Your task to perform on an android device: What is the news today? Image 0: 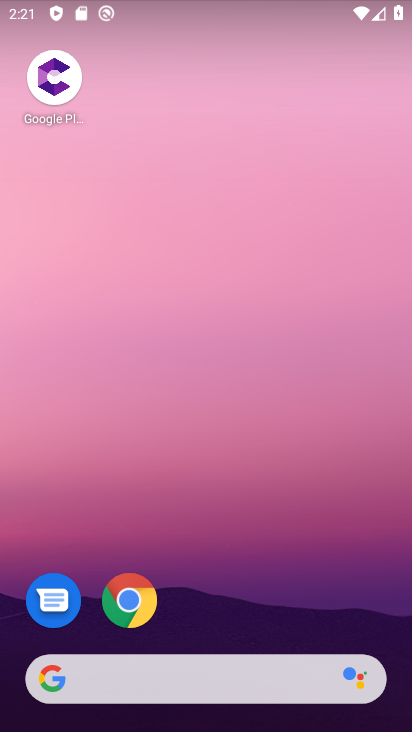
Step 0: drag from (5, 346) to (347, 377)
Your task to perform on an android device: What is the news today? Image 1: 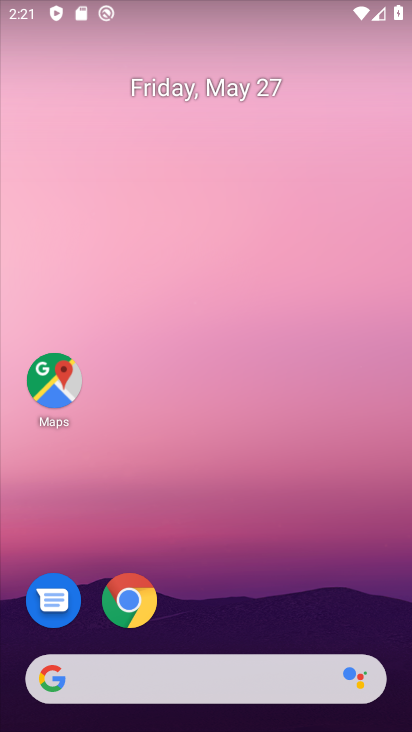
Step 1: drag from (3, 282) to (363, 287)
Your task to perform on an android device: What is the news today? Image 2: 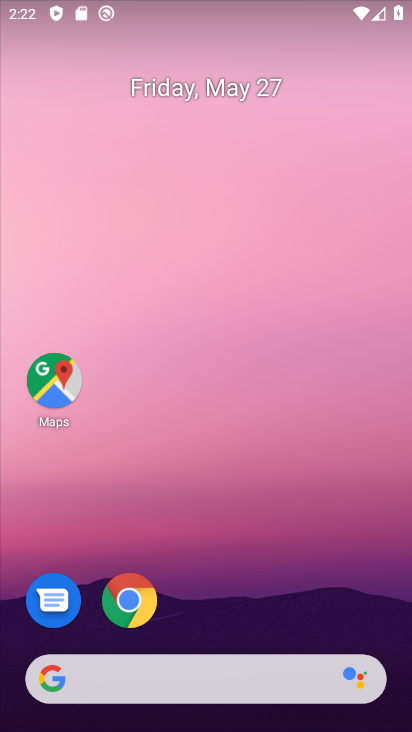
Step 2: drag from (1, 241) to (378, 223)
Your task to perform on an android device: What is the news today? Image 3: 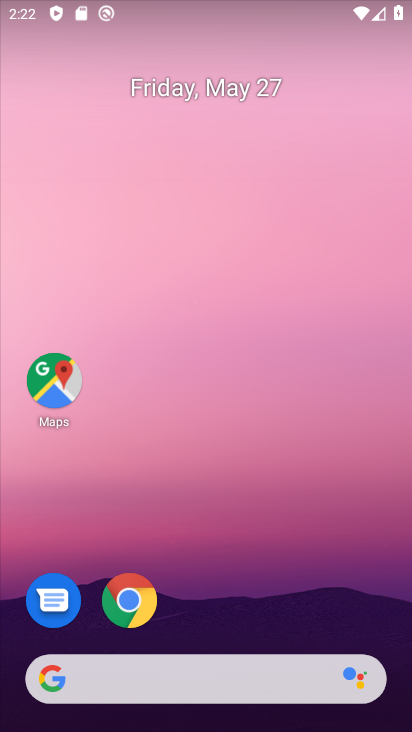
Step 3: drag from (4, 264) to (409, 305)
Your task to perform on an android device: What is the news today? Image 4: 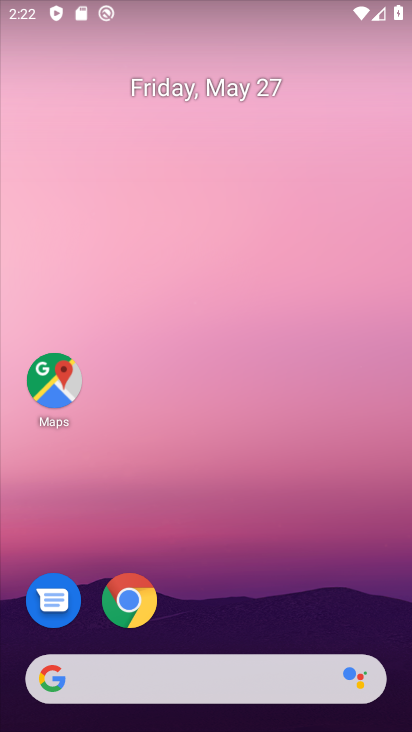
Step 4: click (127, 597)
Your task to perform on an android device: What is the news today? Image 5: 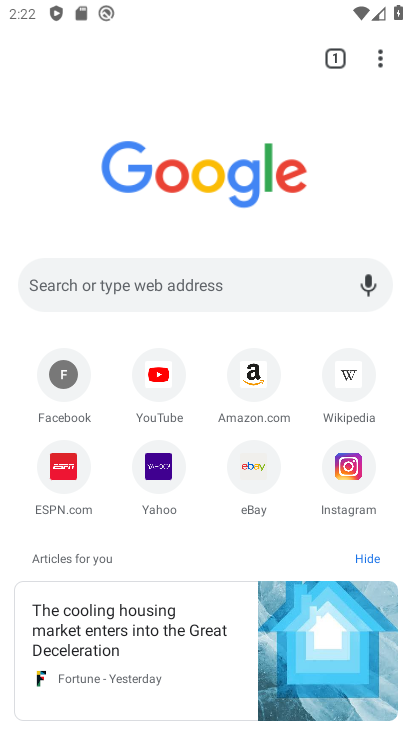
Step 5: task complete